Your task to perform on an android device: change your default location settings in chrome Image 0: 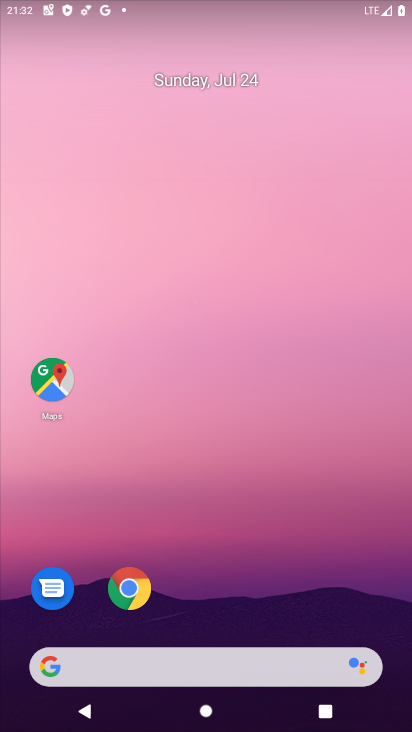
Step 0: click (134, 581)
Your task to perform on an android device: change your default location settings in chrome Image 1: 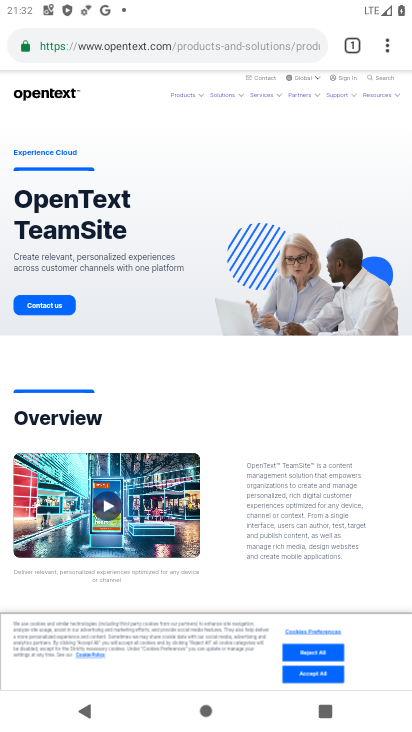
Step 1: drag from (382, 46) to (234, 541)
Your task to perform on an android device: change your default location settings in chrome Image 2: 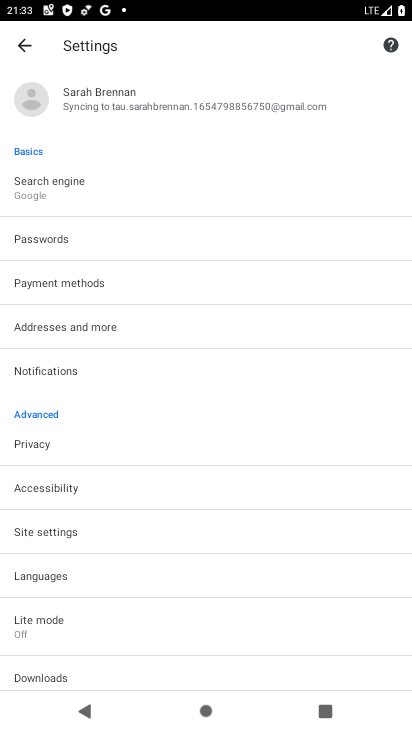
Step 2: click (88, 537)
Your task to perform on an android device: change your default location settings in chrome Image 3: 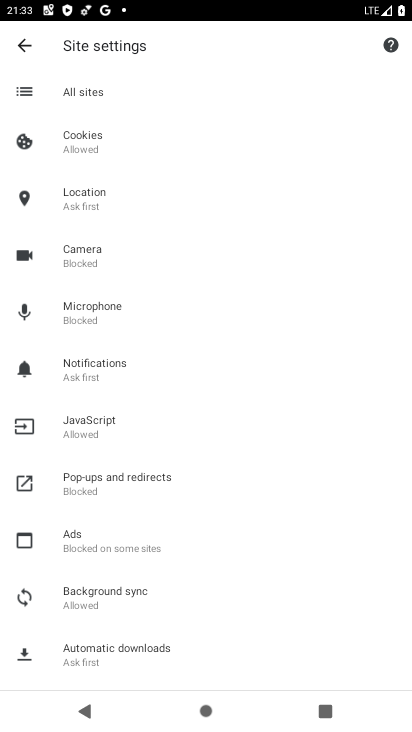
Step 3: click (111, 194)
Your task to perform on an android device: change your default location settings in chrome Image 4: 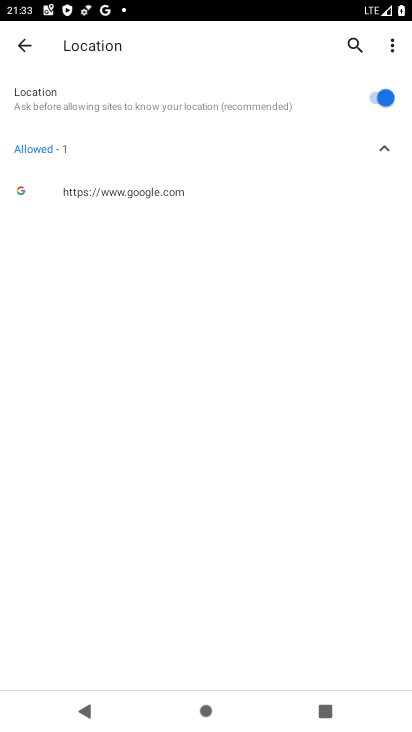
Step 4: click (374, 100)
Your task to perform on an android device: change your default location settings in chrome Image 5: 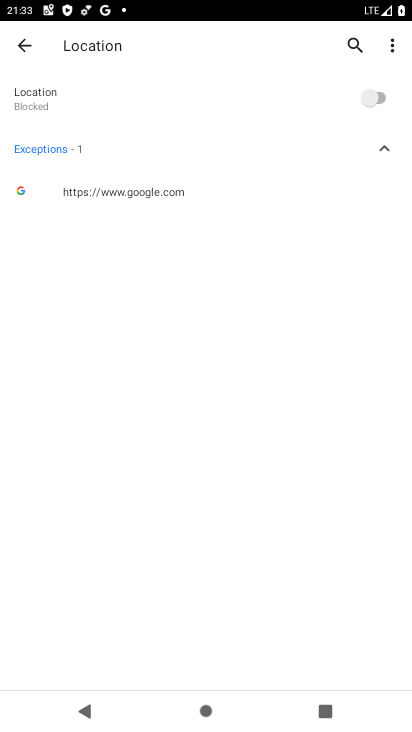
Step 5: click (379, 90)
Your task to perform on an android device: change your default location settings in chrome Image 6: 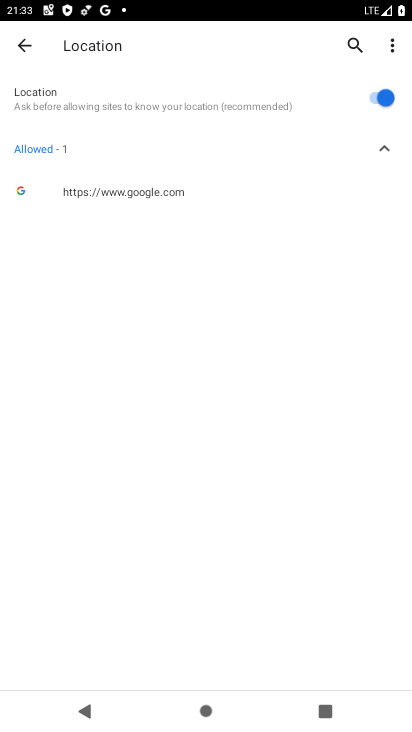
Step 6: task complete